Your task to perform on an android device: check battery use Image 0: 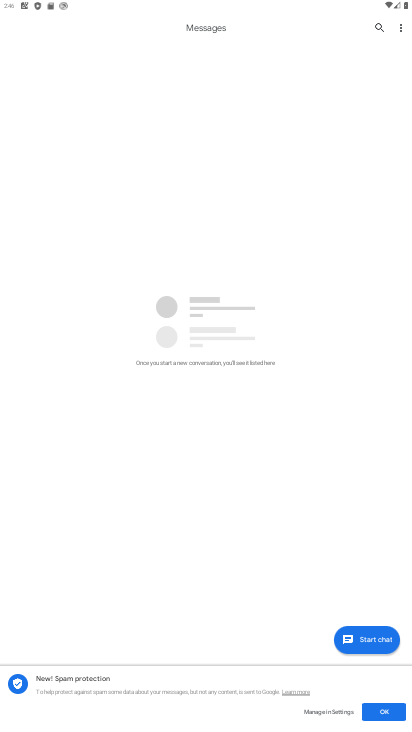
Step 0: press home button
Your task to perform on an android device: check battery use Image 1: 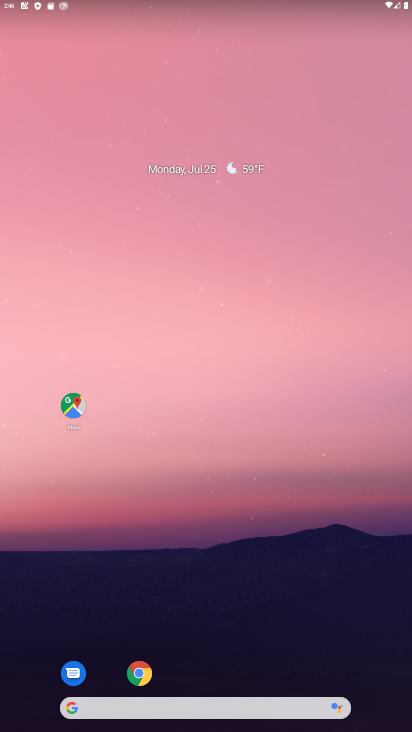
Step 1: drag from (204, 370) to (280, 65)
Your task to perform on an android device: check battery use Image 2: 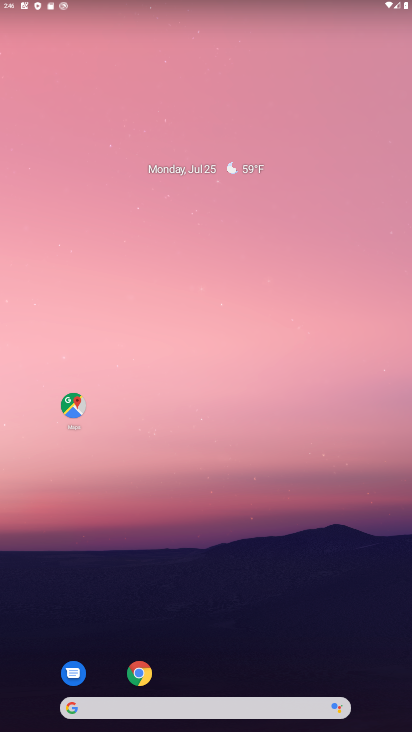
Step 2: drag from (189, 535) to (261, 0)
Your task to perform on an android device: check battery use Image 3: 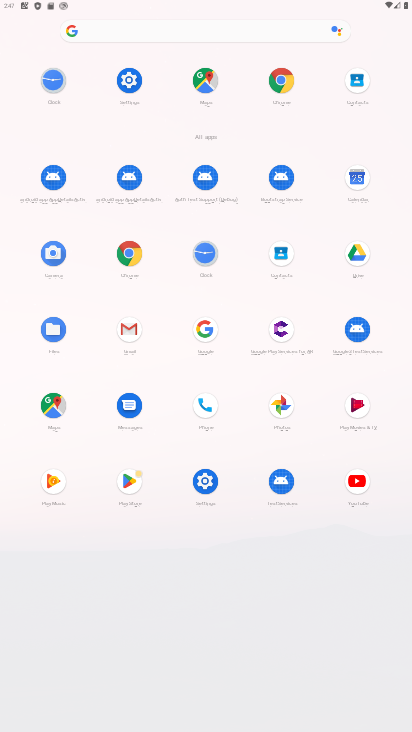
Step 3: click (128, 83)
Your task to perform on an android device: check battery use Image 4: 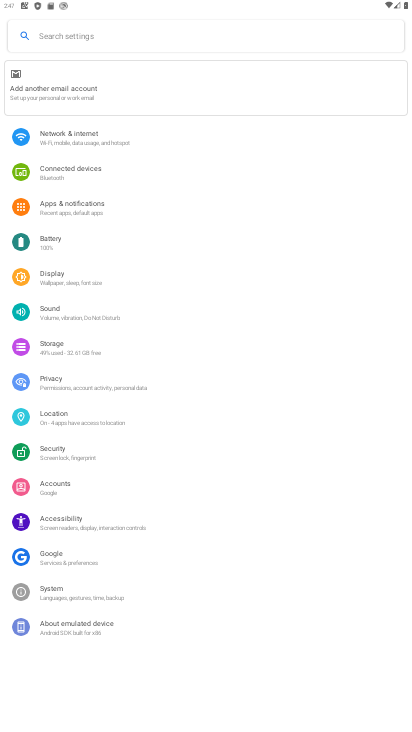
Step 4: click (48, 241)
Your task to perform on an android device: check battery use Image 5: 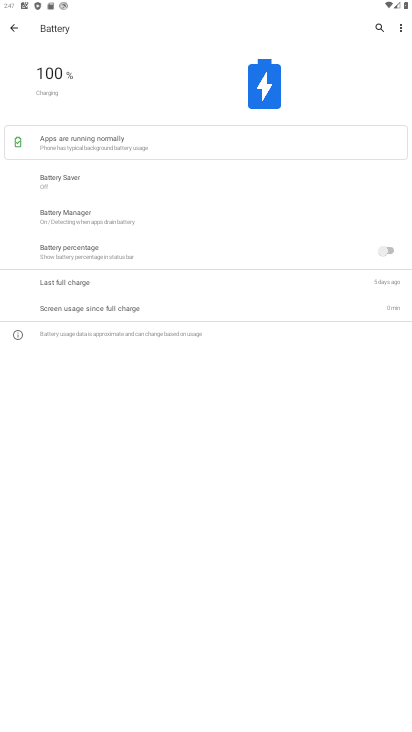
Step 5: task complete